Your task to perform on an android device: Open Google Chrome and open the bookmarks view Image 0: 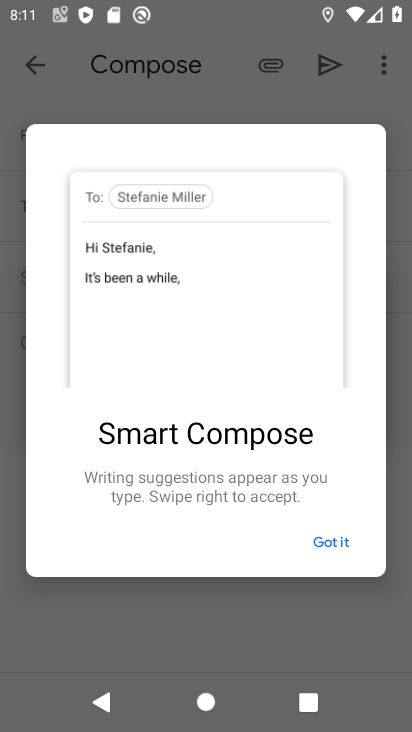
Step 0: press home button
Your task to perform on an android device: Open Google Chrome and open the bookmarks view Image 1: 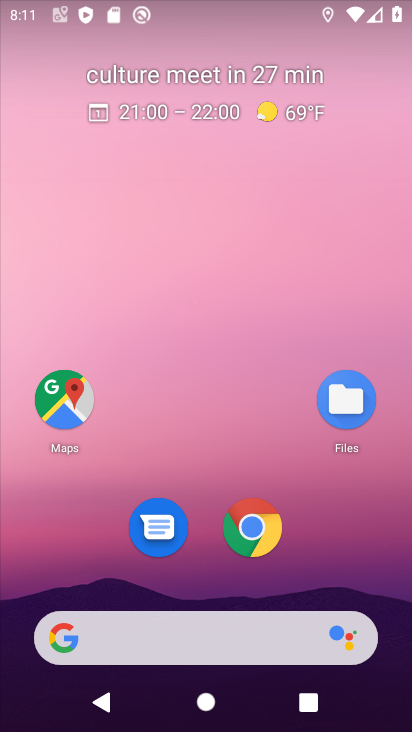
Step 1: click (255, 532)
Your task to perform on an android device: Open Google Chrome and open the bookmarks view Image 2: 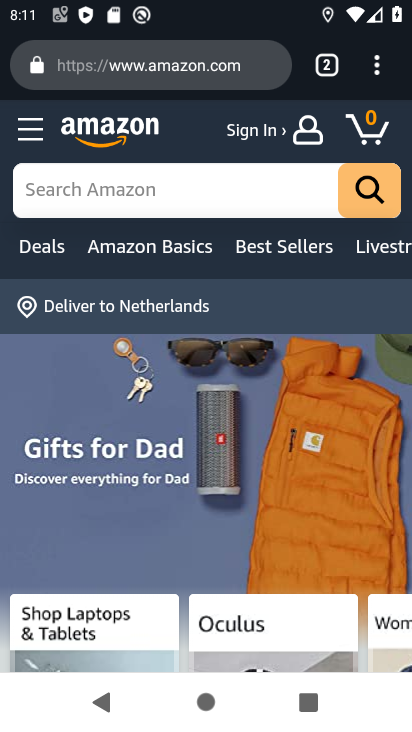
Step 2: click (362, 71)
Your task to perform on an android device: Open Google Chrome and open the bookmarks view Image 3: 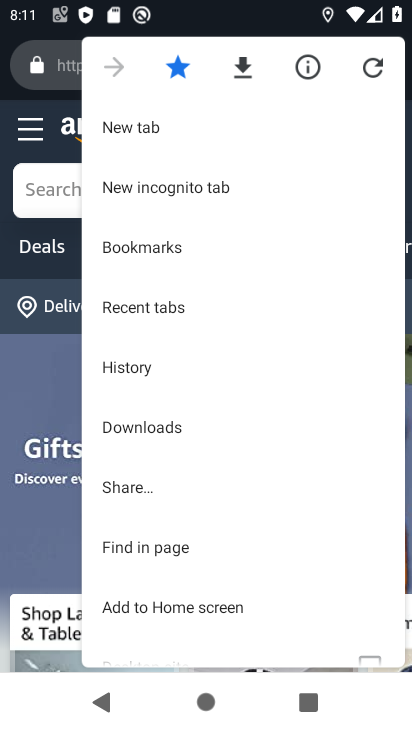
Step 3: click (201, 248)
Your task to perform on an android device: Open Google Chrome and open the bookmarks view Image 4: 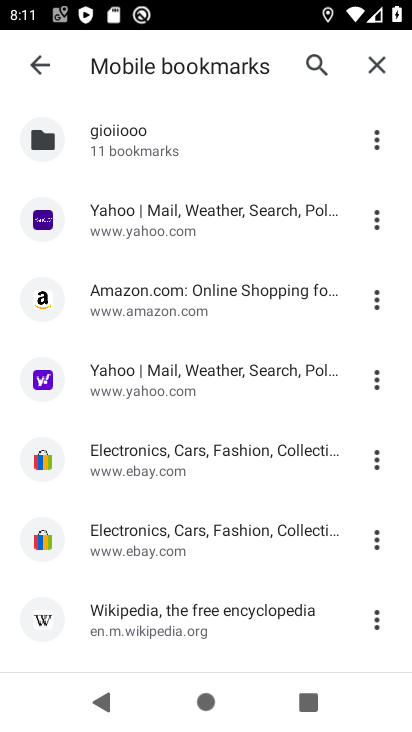
Step 4: click (153, 383)
Your task to perform on an android device: Open Google Chrome and open the bookmarks view Image 5: 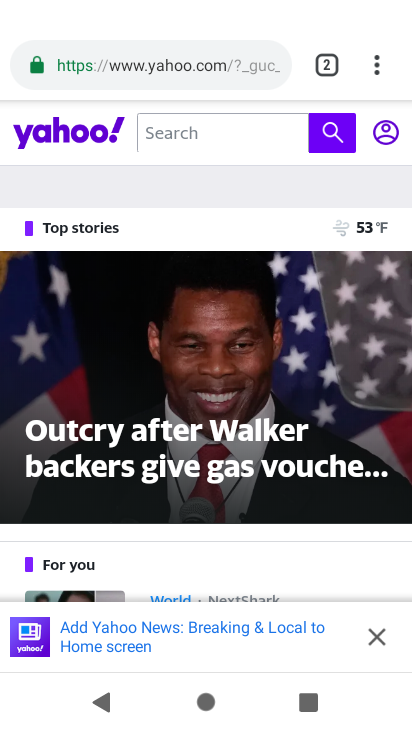
Step 5: task complete